Your task to perform on an android device: turn pop-ups off in chrome Image 0: 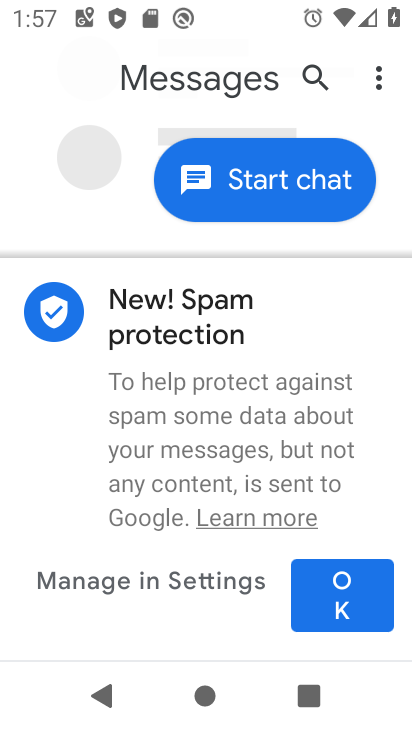
Step 0: press back button
Your task to perform on an android device: turn pop-ups off in chrome Image 1: 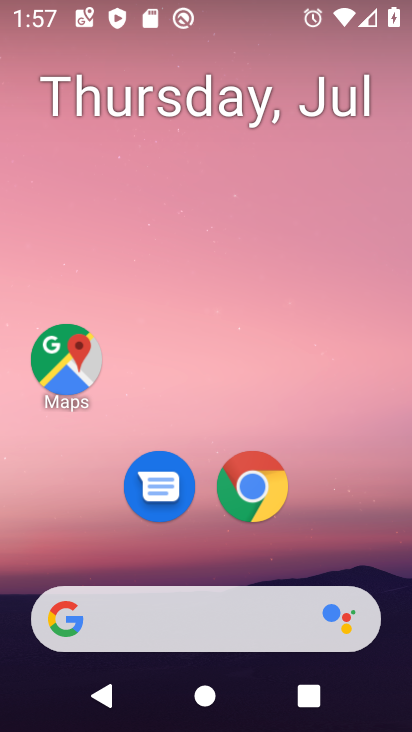
Step 1: click (269, 488)
Your task to perform on an android device: turn pop-ups off in chrome Image 2: 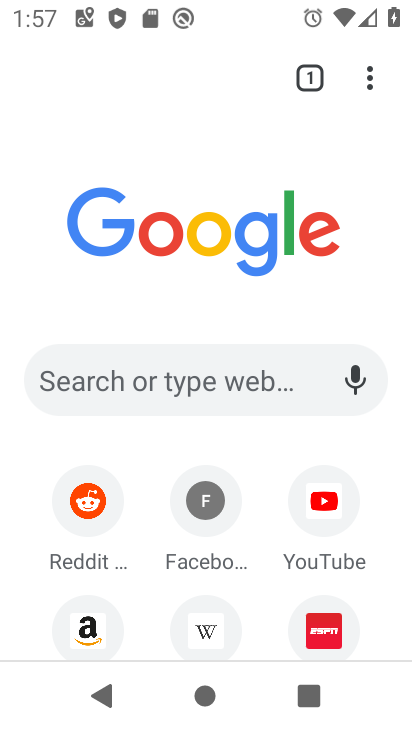
Step 2: drag from (368, 69) to (66, 541)
Your task to perform on an android device: turn pop-ups off in chrome Image 3: 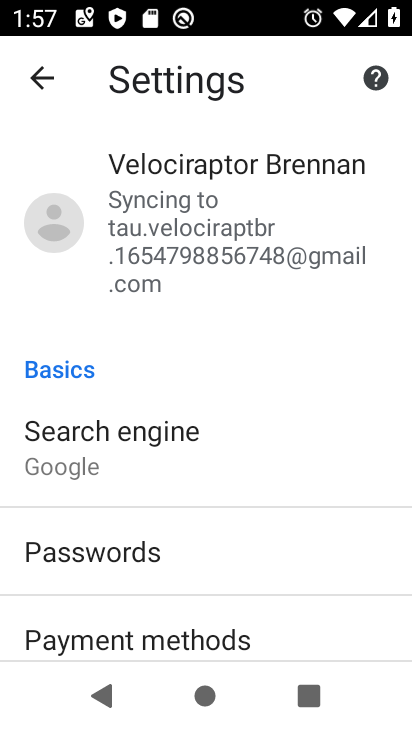
Step 3: drag from (114, 587) to (232, 55)
Your task to perform on an android device: turn pop-ups off in chrome Image 4: 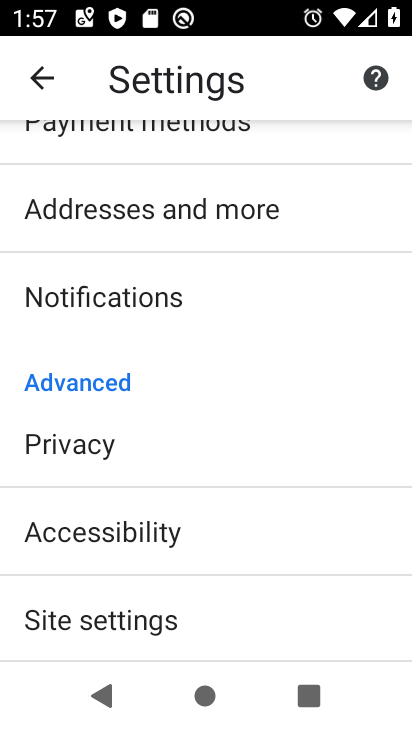
Step 4: drag from (81, 614) to (155, 262)
Your task to perform on an android device: turn pop-ups off in chrome Image 5: 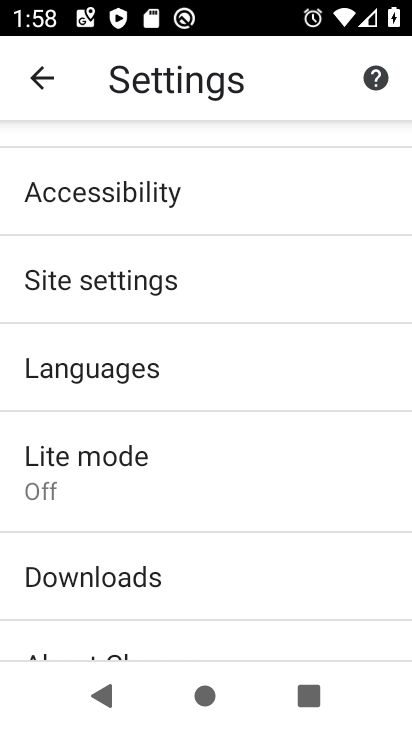
Step 5: click (89, 268)
Your task to perform on an android device: turn pop-ups off in chrome Image 6: 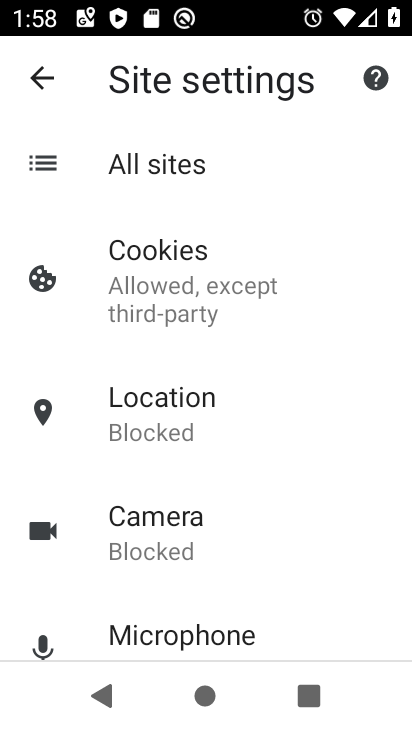
Step 6: drag from (194, 591) to (262, 75)
Your task to perform on an android device: turn pop-ups off in chrome Image 7: 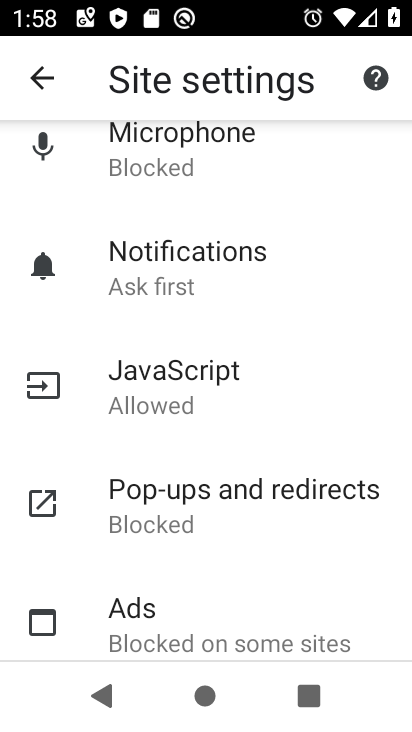
Step 7: click (158, 509)
Your task to perform on an android device: turn pop-ups off in chrome Image 8: 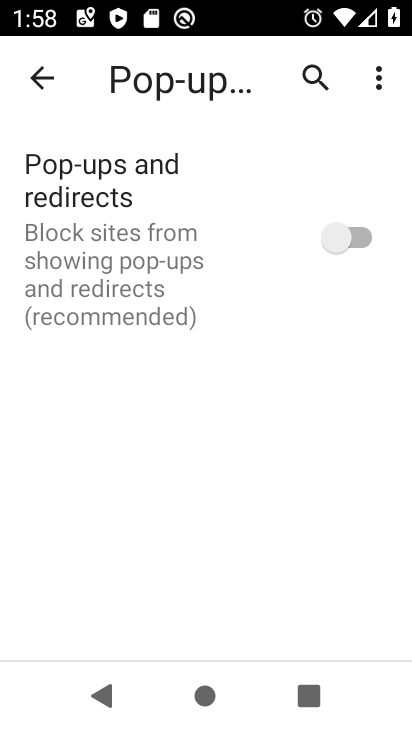
Step 8: task complete